Your task to perform on an android device: toggle airplane mode Image 0: 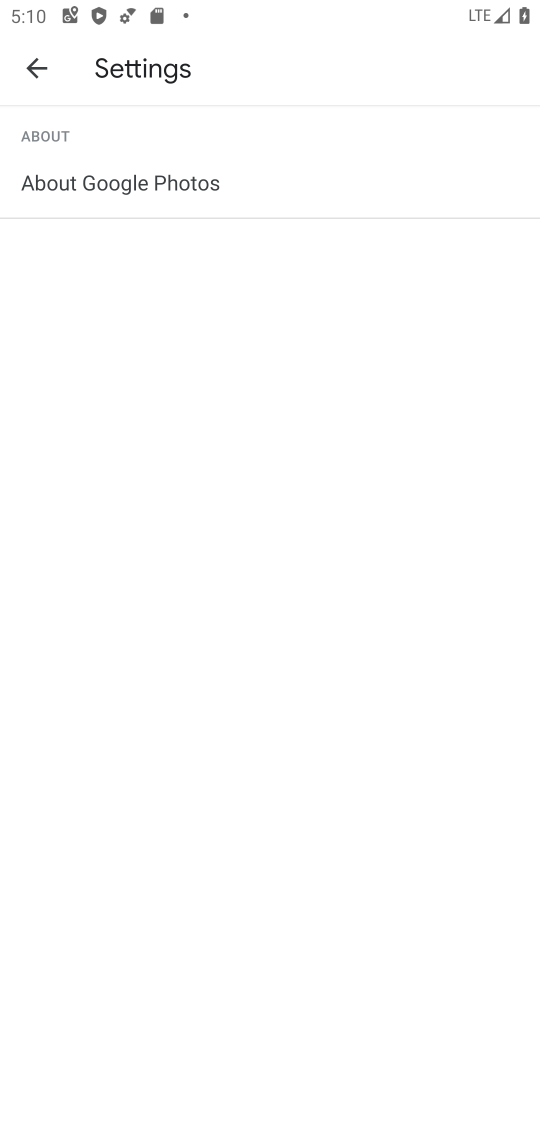
Step 0: press home button
Your task to perform on an android device: toggle airplane mode Image 1: 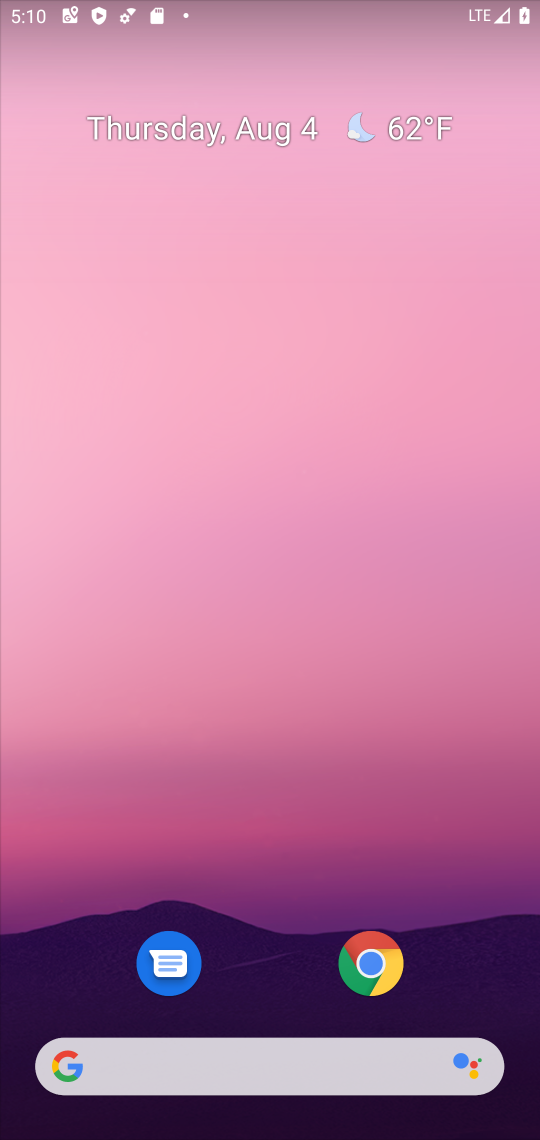
Step 1: drag from (303, 837) to (306, 40)
Your task to perform on an android device: toggle airplane mode Image 2: 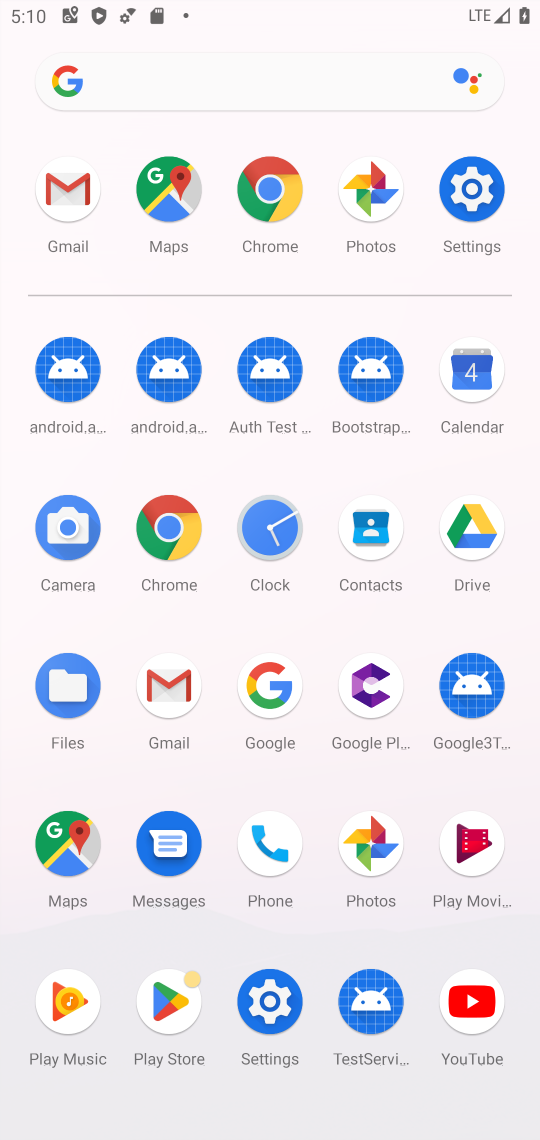
Step 2: click (474, 191)
Your task to perform on an android device: toggle airplane mode Image 3: 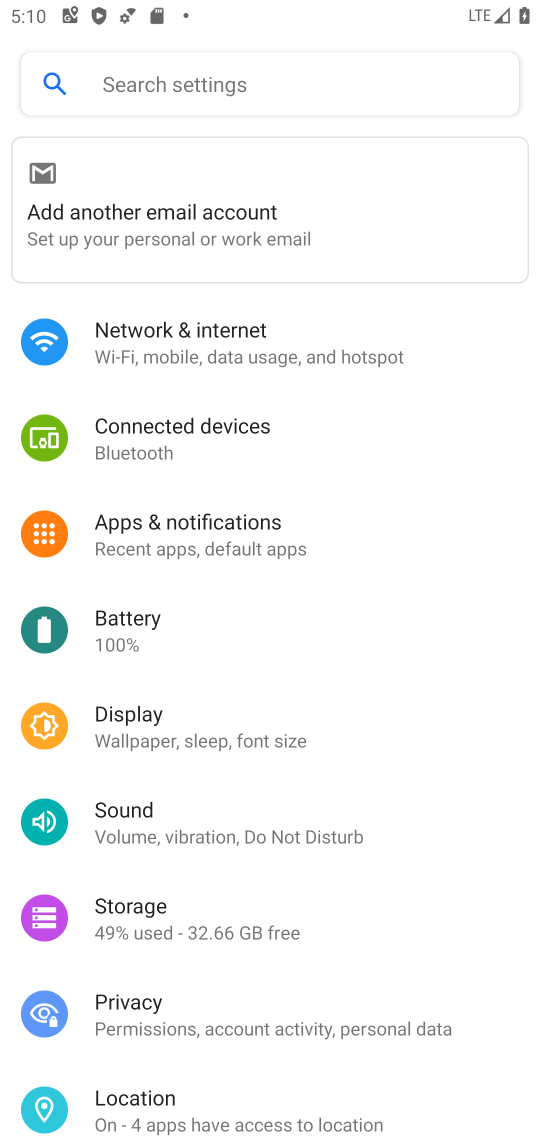
Step 3: click (176, 331)
Your task to perform on an android device: toggle airplane mode Image 4: 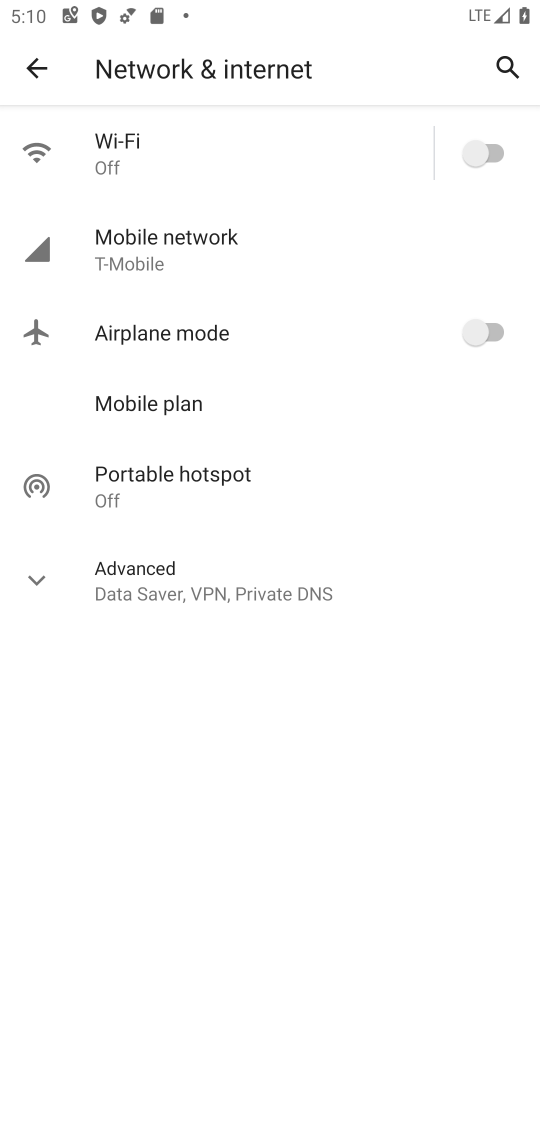
Step 4: click (470, 339)
Your task to perform on an android device: toggle airplane mode Image 5: 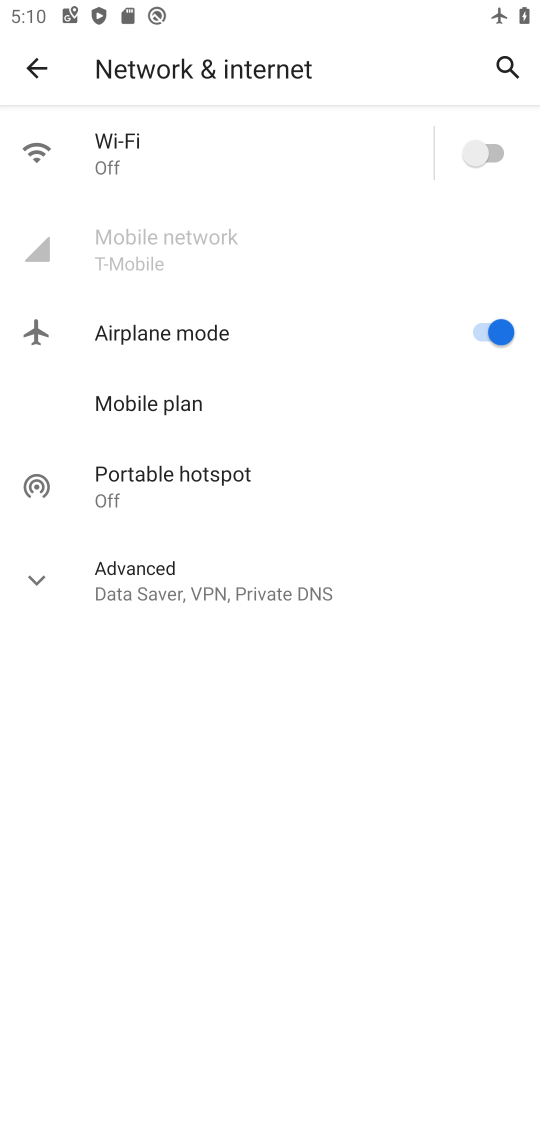
Step 5: task complete